Your task to perform on an android device: toggle javascript in the chrome app Image 0: 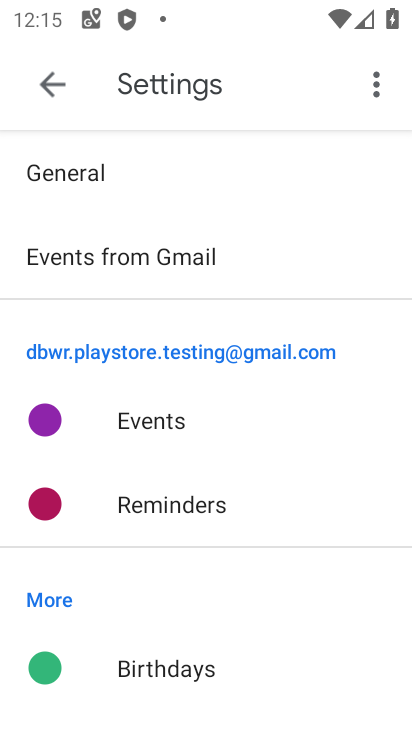
Step 0: press home button
Your task to perform on an android device: toggle javascript in the chrome app Image 1: 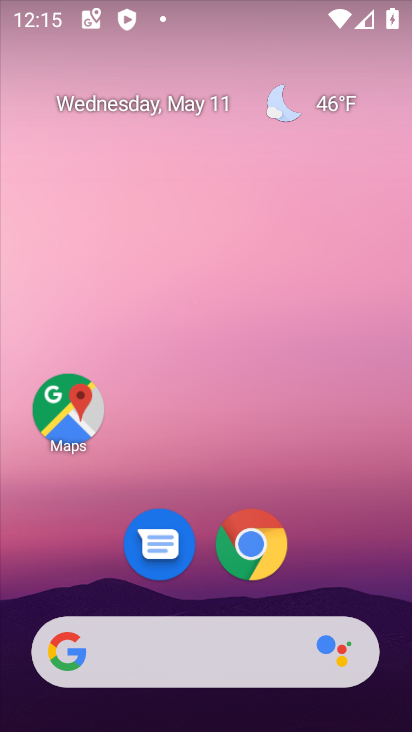
Step 1: click (254, 543)
Your task to perform on an android device: toggle javascript in the chrome app Image 2: 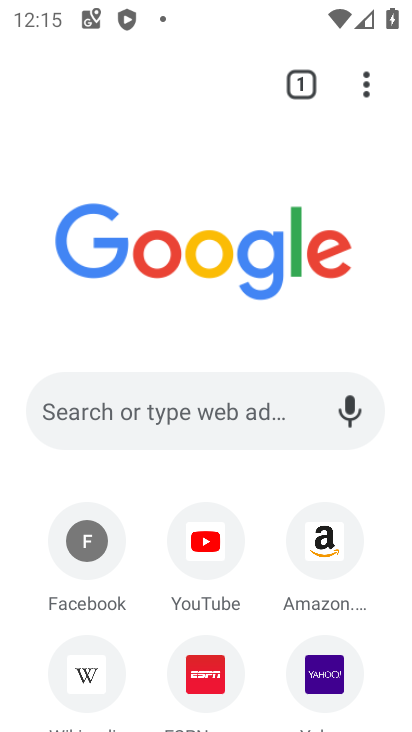
Step 2: click (365, 90)
Your task to perform on an android device: toggle javascript in the chrome app Image 3: 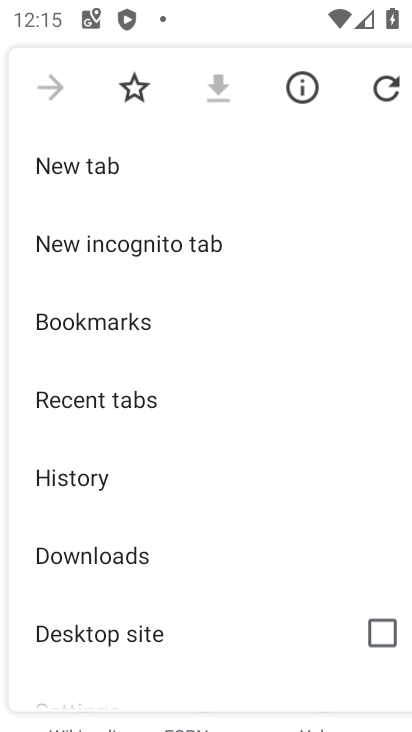
Step 3: drag from (236, 638) to (275, 203)
Your task to perform on an android device: toggle javascript in the chrome app Image 4: 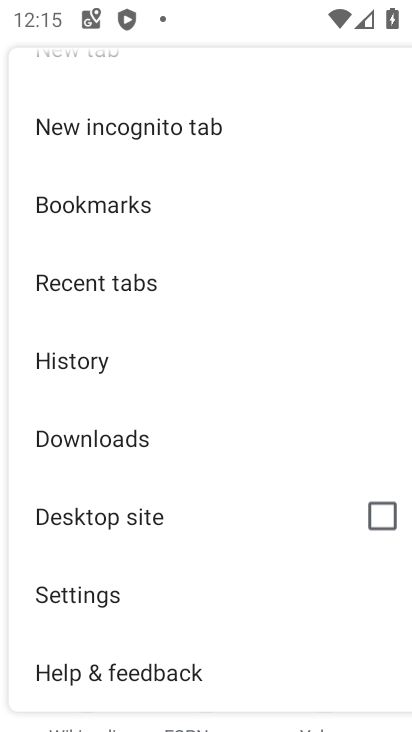
Step 4: click (92, 591)
Your task to perform on an android device: toggle javascript in the chrome app Image 5: 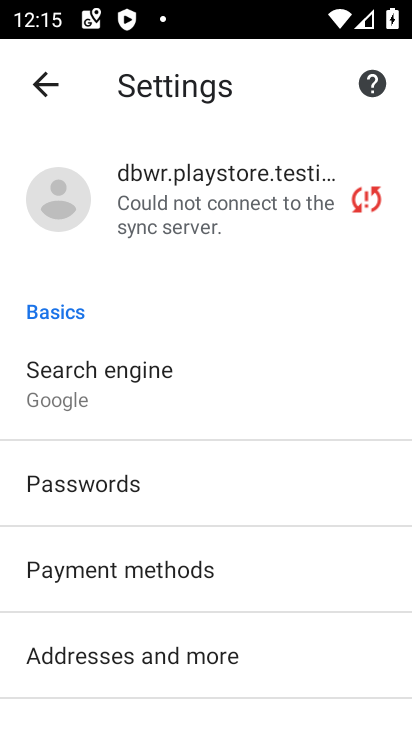
Step 5: drag from (272, 649) to (277, 187)
Your task to perform on an android device: toggle javascript in the chrome app Image 6: 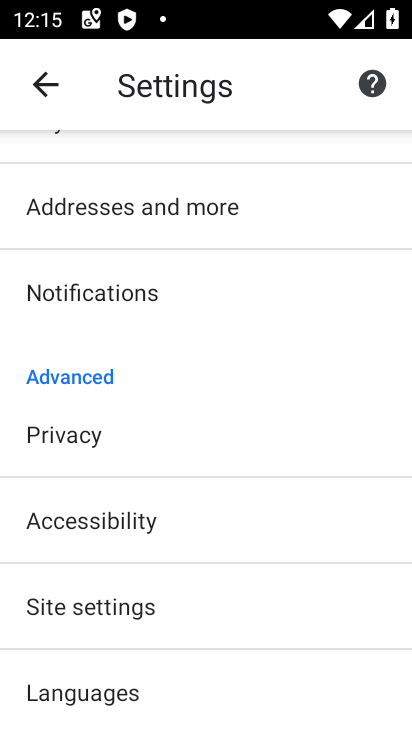
Step 6: click (72, 612)
Your task to perform on an android device: toggle javascript in the chrome app Image 7: 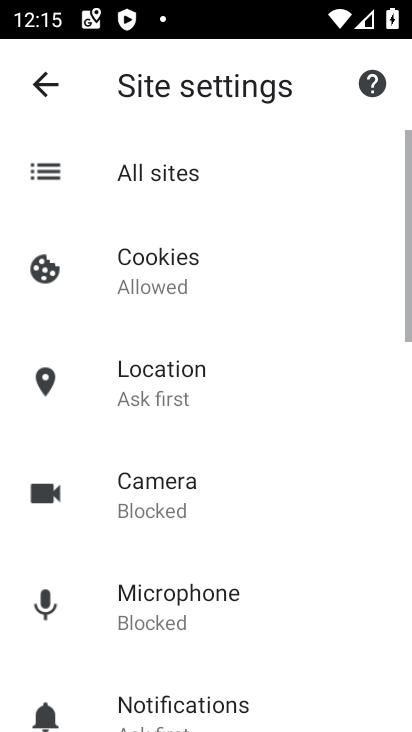
Step 7: drag from (273, 211) to (297, 97)
Your task to perform on an android device: toggle javascript in the chrome app Image 8: 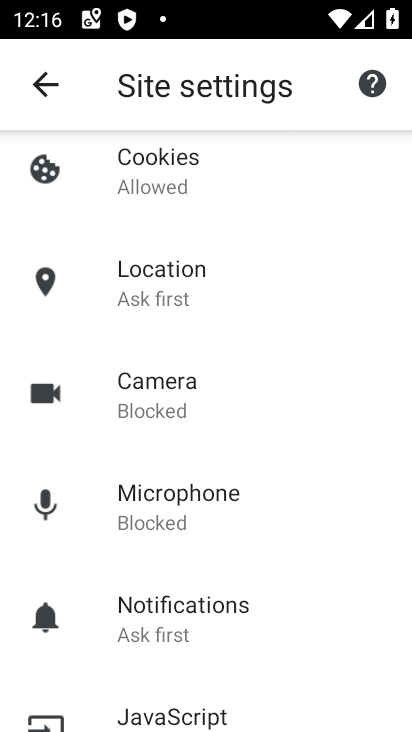
Step 8: drag from (282, 671) to (317, 148)
Your task to perform on an android device: toggle javascript in the chrome app Image 9: 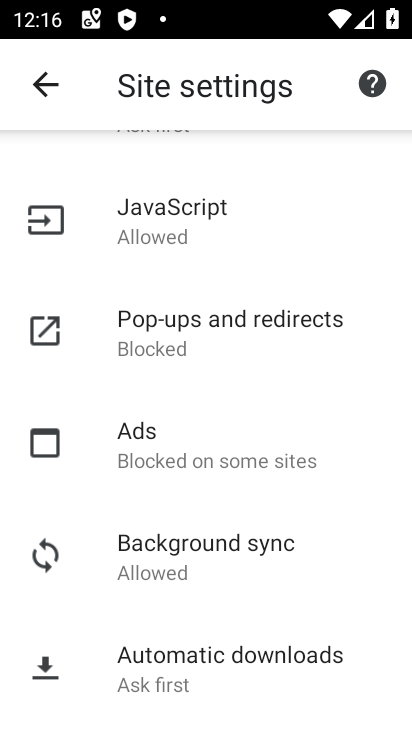
Step 9: click (139, 214)
Your task to perform on an android device: toggle javascript in the chrome app Image 10: 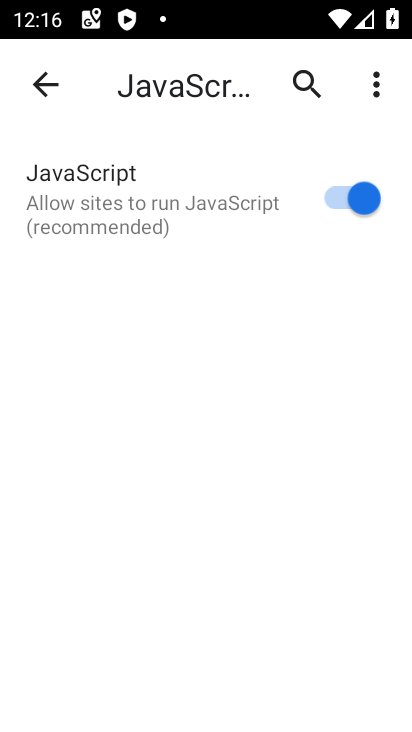
Step 10: click (334, 191)
Your task to perform on an android device: toggle javascript in the chrome app Image 11: 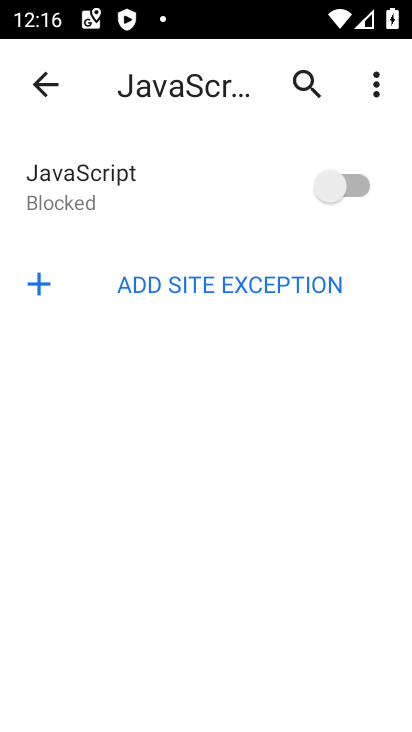
Step 11: task complete